Your task to perform on an android device: change text size in settings app Image 0: 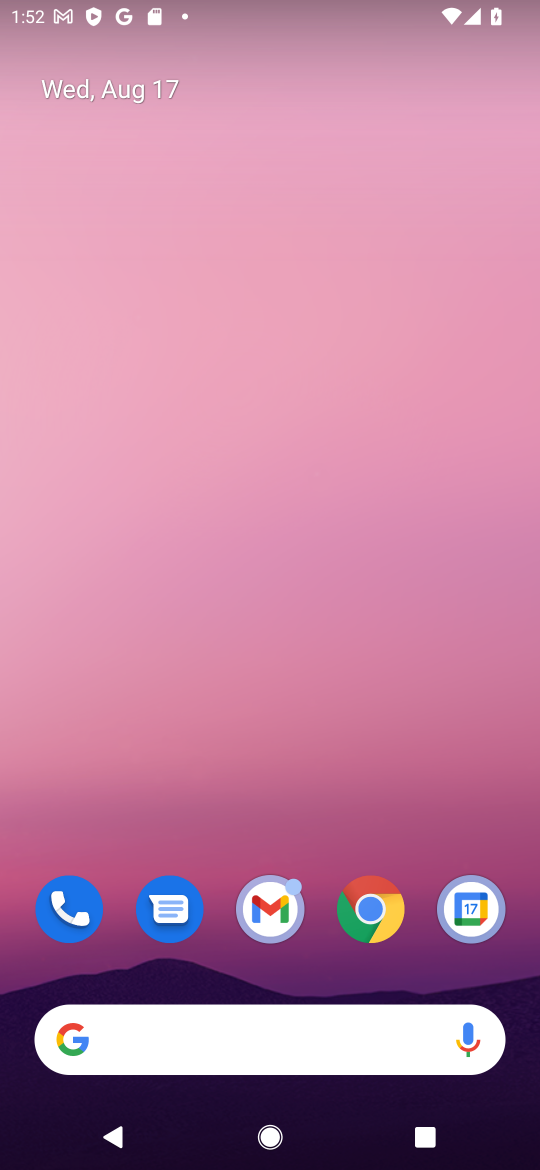
Step 0: drag from (298, 778) to (267, 266)
Your task to perform on an android device: change text size in settings app Image 1: 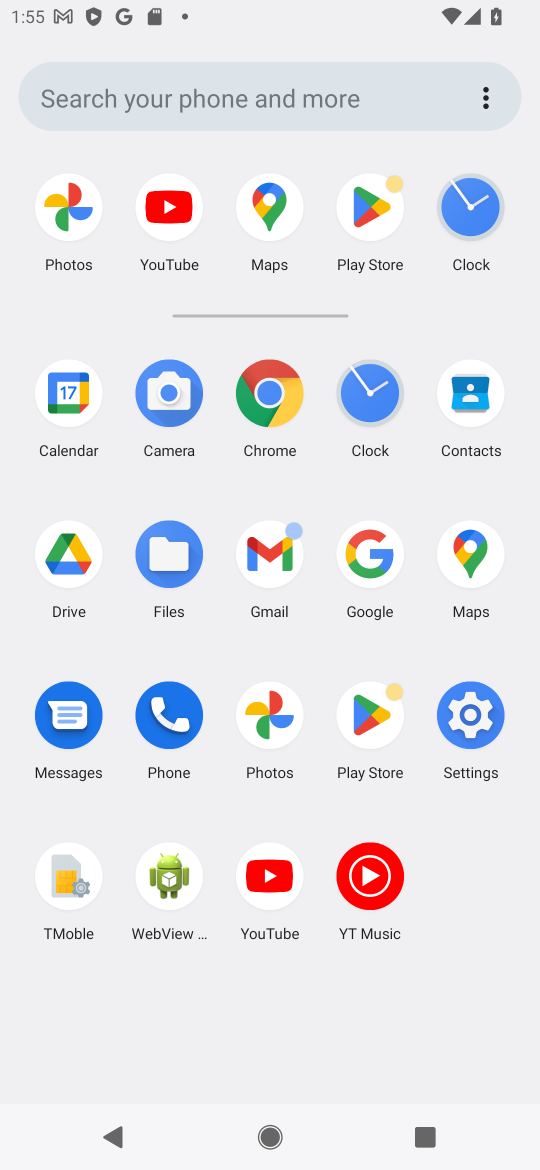
Step 1: click (468, 726)
Your task to perform on an android device: change text size in settings app Image 2: 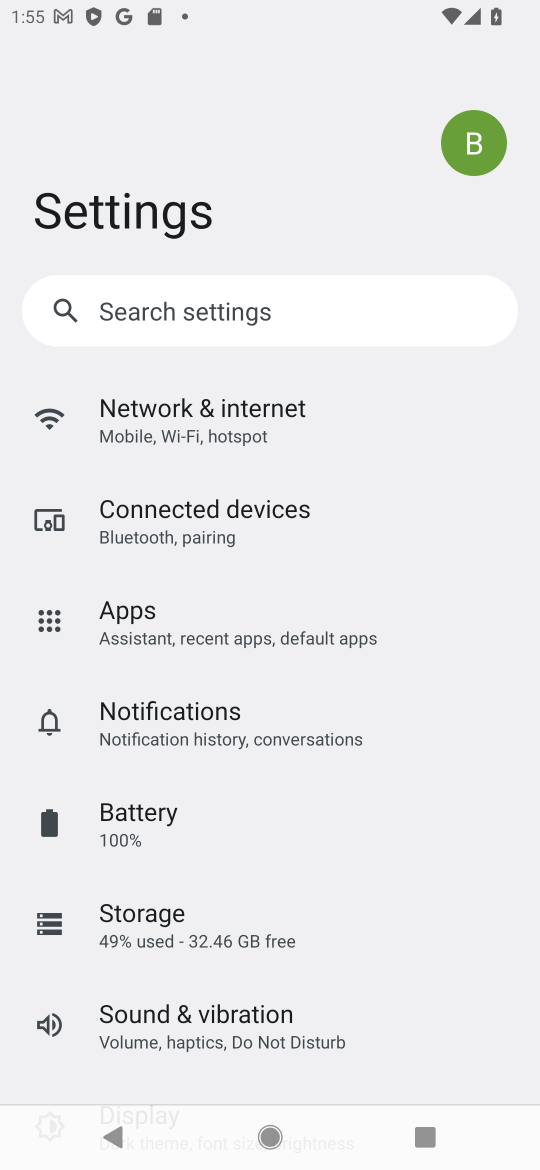
Step 2: task complete